Your task to perform on an android device: open app "Adobe Acrobat Reader" (install if not already installed) and go to login screen Image 0: 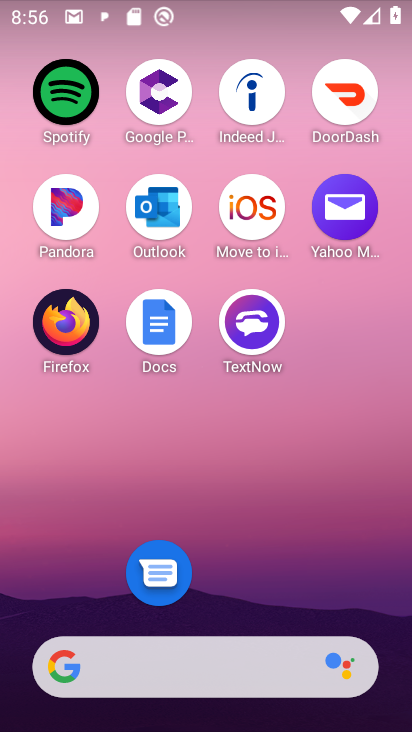
Step 0: drag from (210, 599) to (188, 0)
Your task to perform on an android device: open app "Adobe Acrobat Reader" (install if not already installed) and go to login screen Image 1: 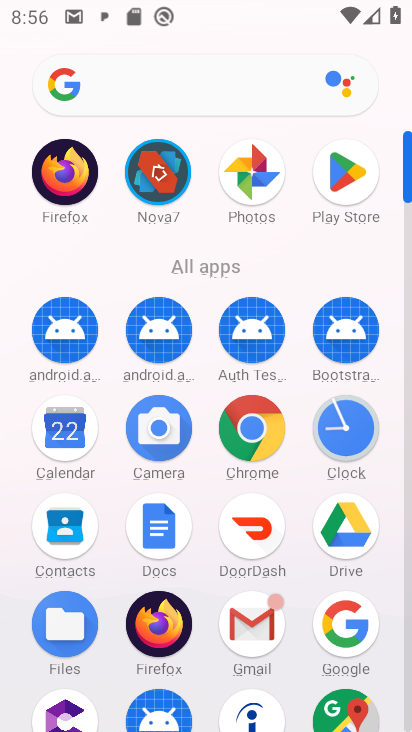
Step 1: click (334, 181)
Your task to perform on an android device: open app "Adobe Acrobat Reader" (install if not already installed) and go to login screen Image 2: 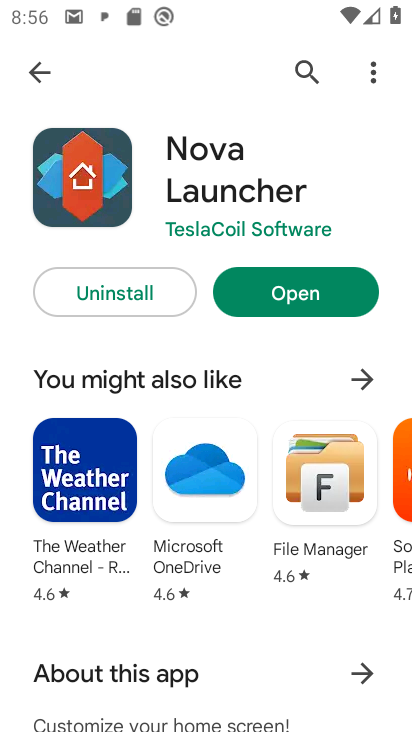
Step 2: click (38, 72)
Your task to perform on an android device: open app "Adobe Acrobat Reader" (install if not already installed) and go to login screen Image 3: 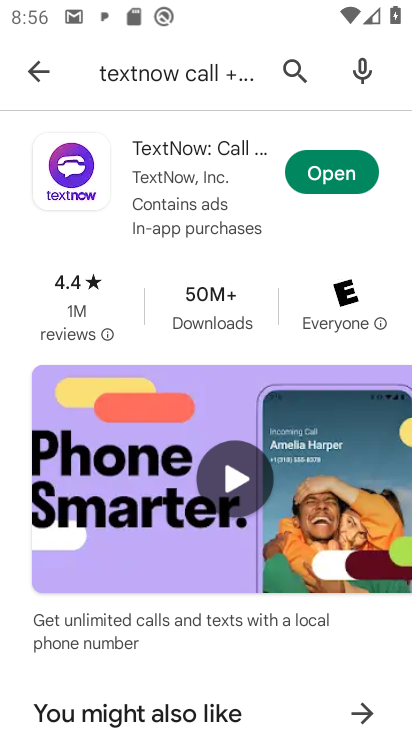
Step 3: click (157, 78)
Your task to perform on an android device: open app "Adobe Acrobat Reader" (install if not already installed) and go to login screen Image 4: 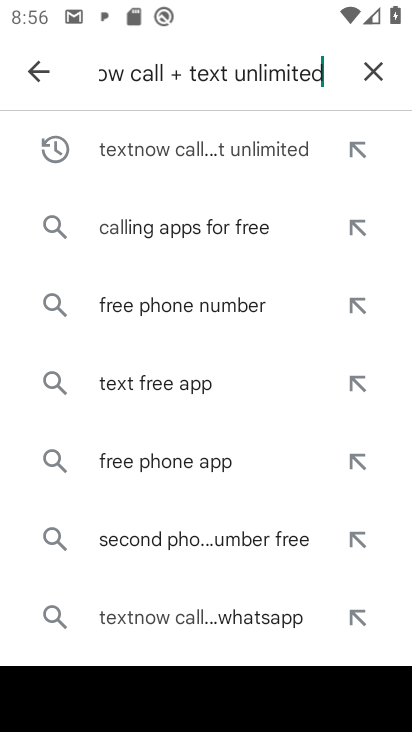
Step 4: click (378, 68)
Your task to perform on an android device: open app "Adobe Acrobat Reader" (install if not already installed) and go to login screen Image 5: 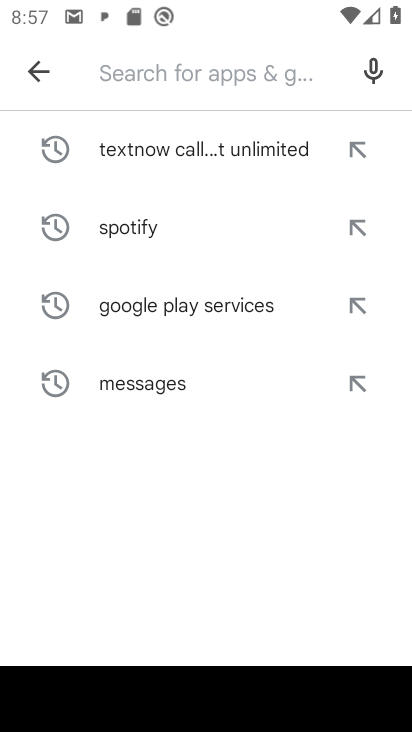
Step 5: type "Adobe Acrobat Reader"
Your task to perform on an android device: open app "Adobe Acrobat Reader" (install if not already installed) and go to login screen Image 6: 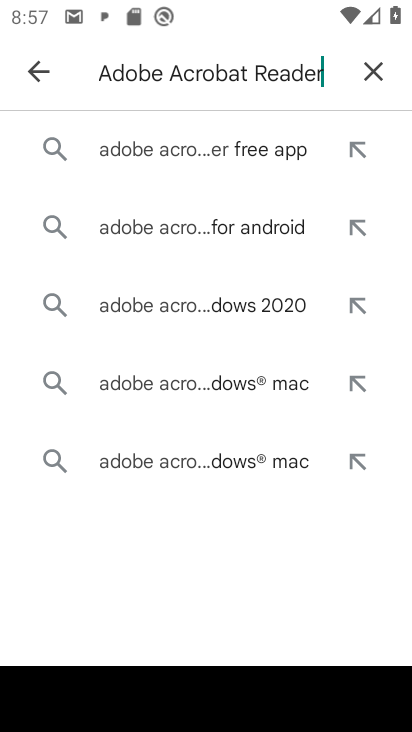
Step 6: click (177, 153)
Your task to perform on an android device: open app "Adobe Acrobat Reader" (install if not already installed) and go to login screen Image 7: 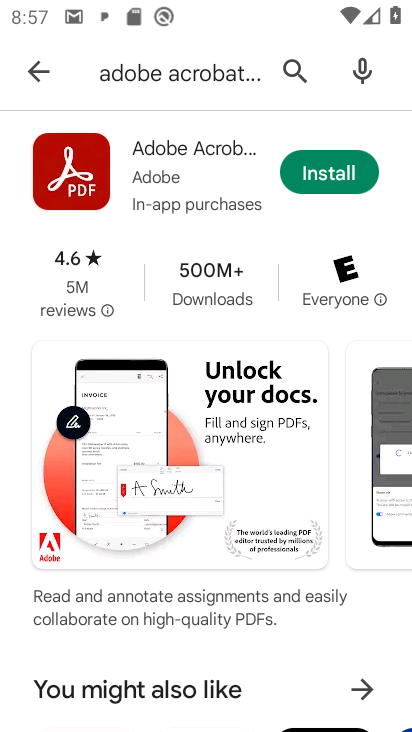
Step 7: click (343, 171)
Your task to perform on an android device: open app "Adobe Acrobat Reader" (install if not already installed) and go to login screen Image 8: 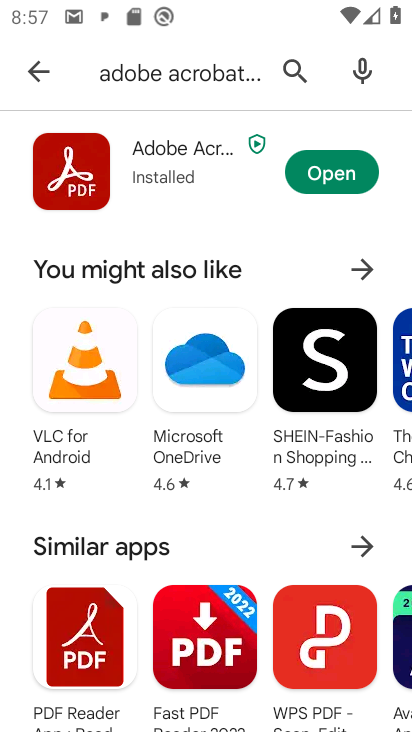
Step 8: click (332, 174)
Your task to perform on an android device: open app "Adobe Acrobat Reader" (install if not already installed) and go to login screen Image 9: 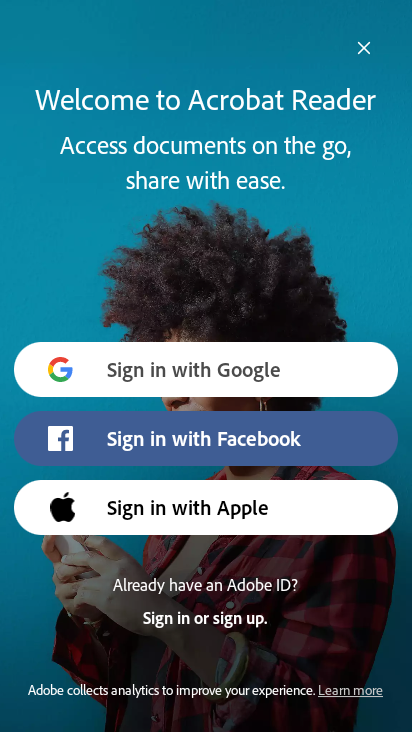
Step 9: click (165, 623)
Your task to perform on an android device: open app "Adobe Acrobat Reader" (install if not already installed) and go to login screen Image 10: 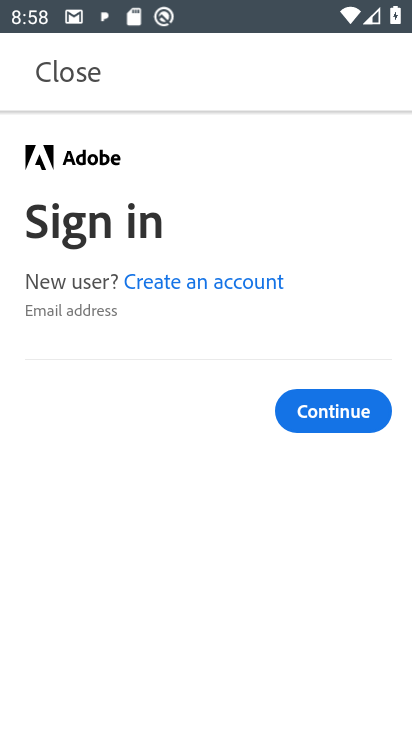
Step 10: task complete